Your task to perform on an android device: Open the map Image 0: 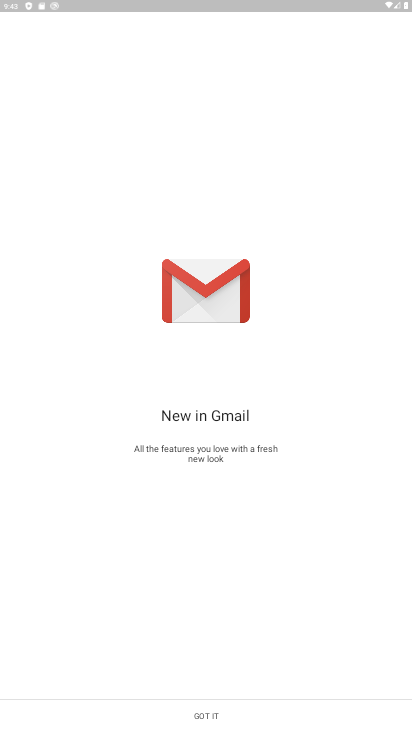
Step 0: press home button
Your task to perform on an android device: Open the map Image 1: 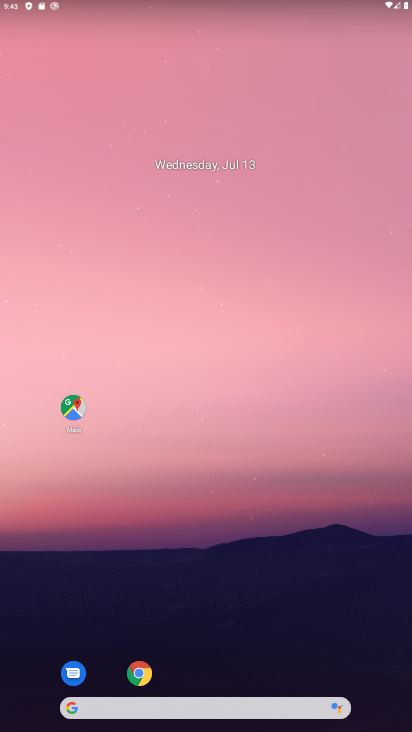
Step 1: drag from (171, 676) to (217, 257)
Your task to perform on an android device: Open the map Image 2: 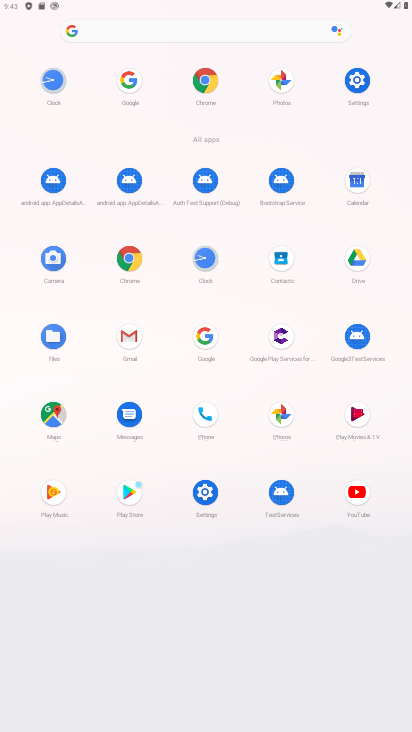
Step 2: click (49, 414)
Your task to perform on an android device: Open the map Image 3: 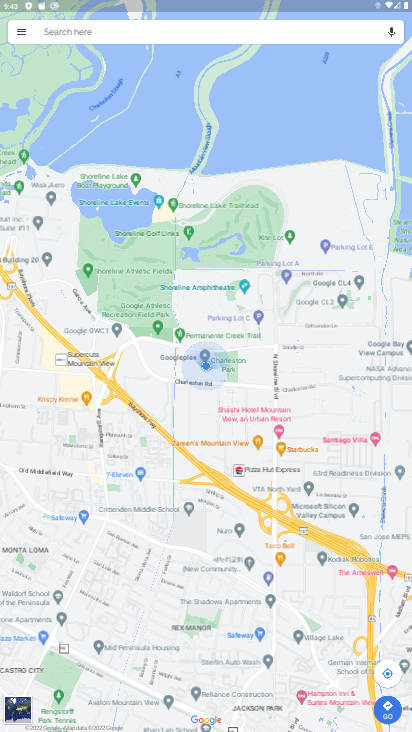
Step 3: task complete